Your task to perform on an android device: uninstall "Google Duo" Image 0: 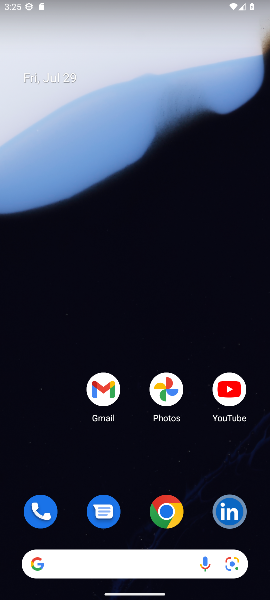
Step 0: drag from (131, 538) to (150, 284)
Your task to perform on an android device: uninstall "Google Duo" Image 1: 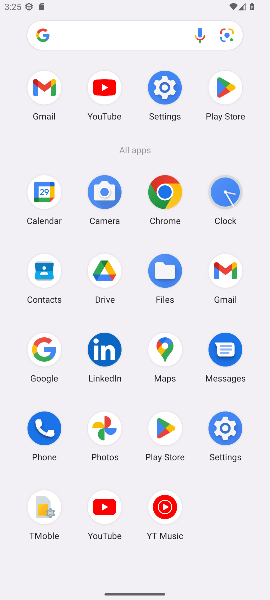
Step 1: click (160, 428)
Your task to perform on an android device: uninstall "Google Duo" Image 2: 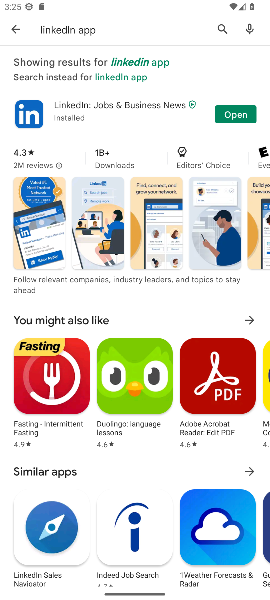
Step 2: click (219, 27)
Your task to perform on an android device: uninstall "Google Duo" Image 3: 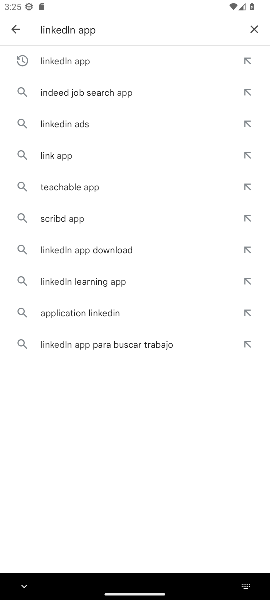
Step 3: click (257, 30)
Your task to perform on an android device: uninstall "Google Duo" Image 4: 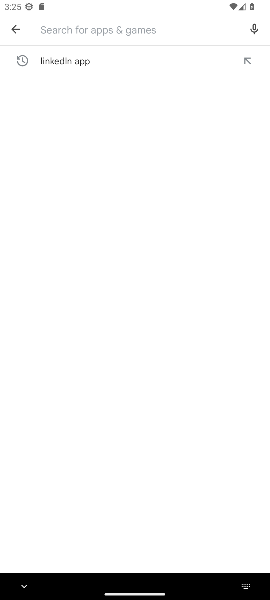
Step 4: type "google duo"
Your task to perform on an android device: uninstall "Google Duo" Image 5: 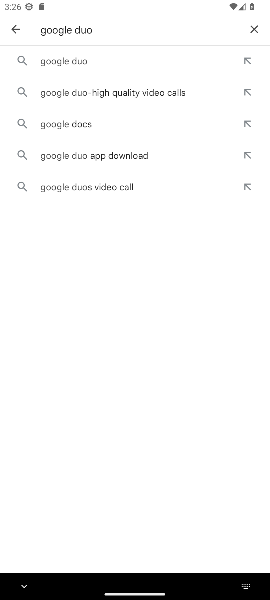
Step 5: click (49, 64)
Your task to perform on an android device: uninstall "Google Duo" Image 6: 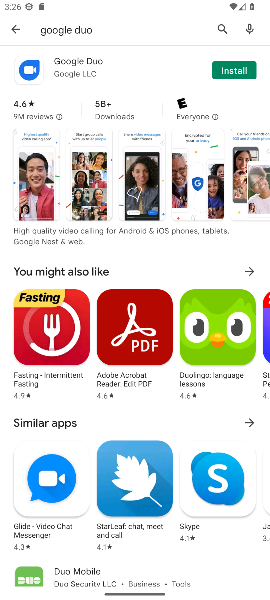
Step 6: task complete